Your task to perform on an android device: Go to accessibility settings Image 0: 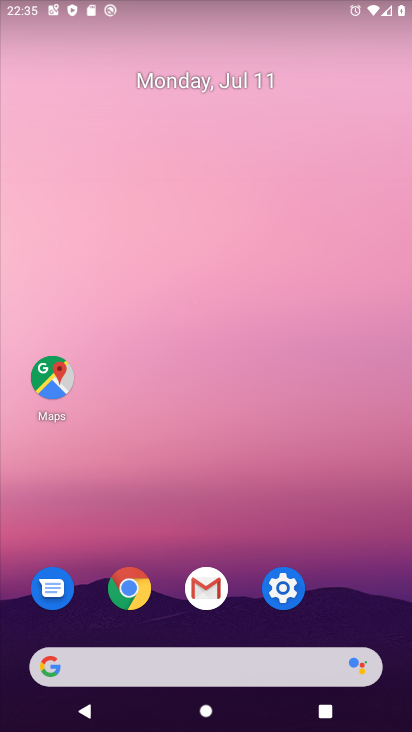
Step 0: click (291, 585)
Your task to perform on an android device: Go to accessibility settings Image 1: 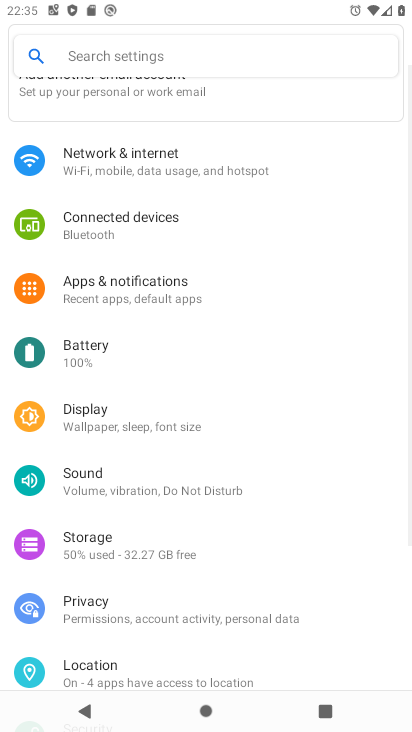
Step 1: click (110, 48)
Your task to perform on an android device: Go to accessibility settings Image 2: 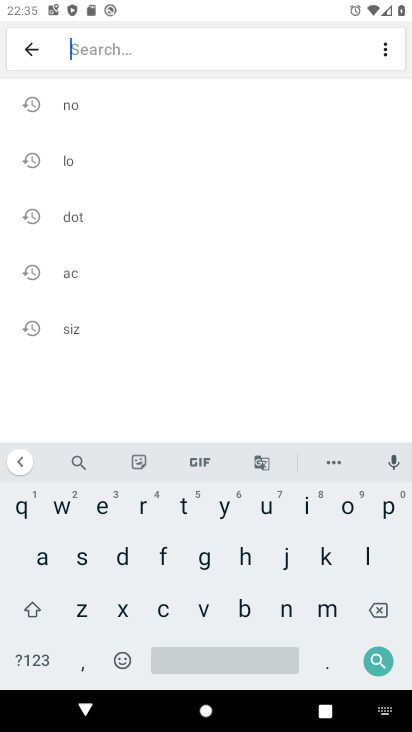
Step 2: click (45, 552)
Your task to perform on an android device: Go to accessibility settings Image 3: 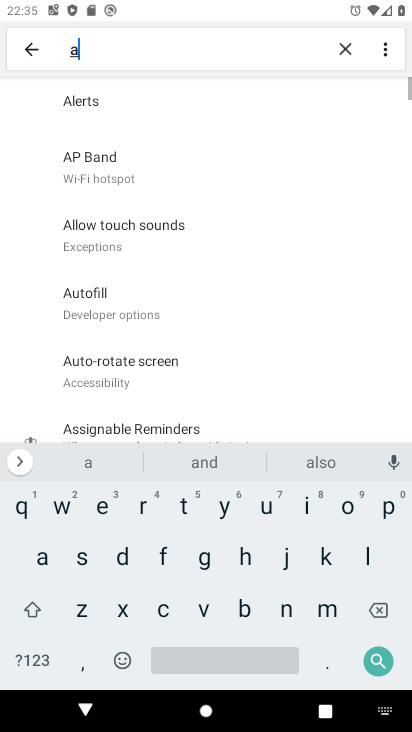
Step 3: click (165, 604)
Your task to perform on an android device: Go to accessibility settings Image 4: 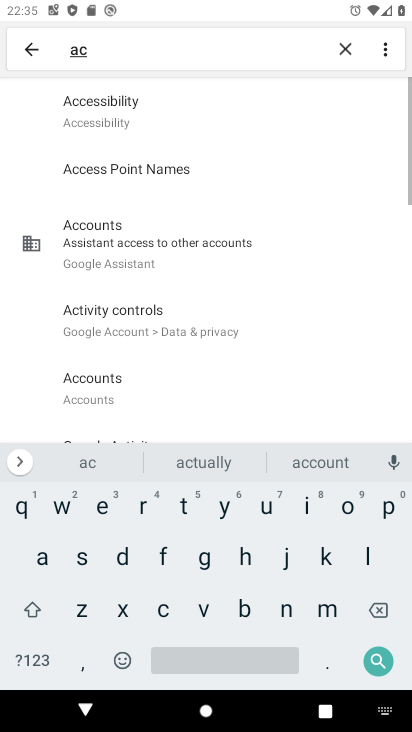
Step 4: click (132, 120)
Your task to perform on an android device: Go to accessibility settings Image 5: 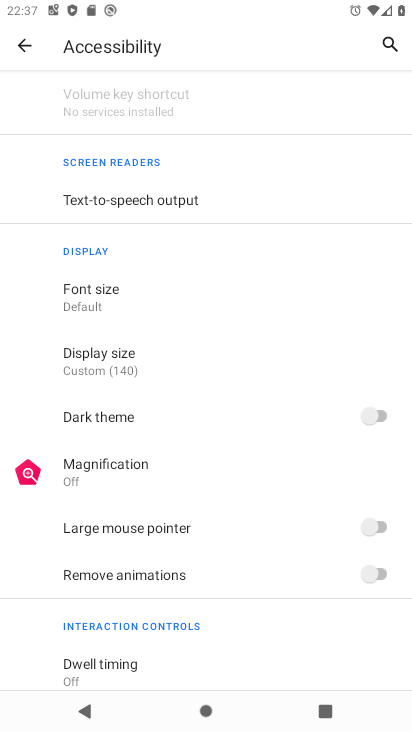
Step 5: task complete